Your task to perform on an android device: Open maps Image 0: 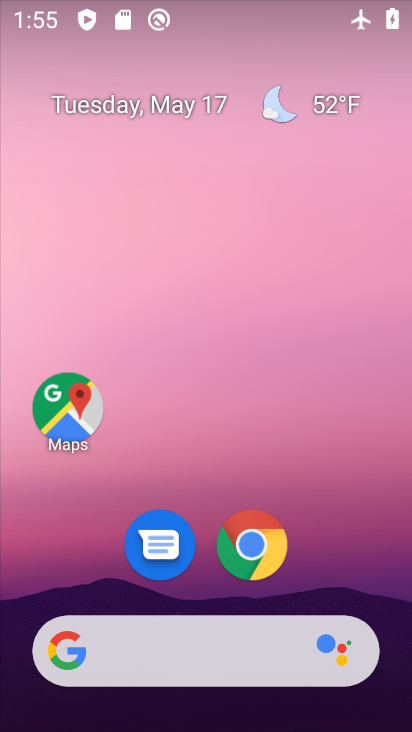
Step 0: drag from (375, 559) to (361, 192)
Your task to perform on an android device: Open maps Image 1: 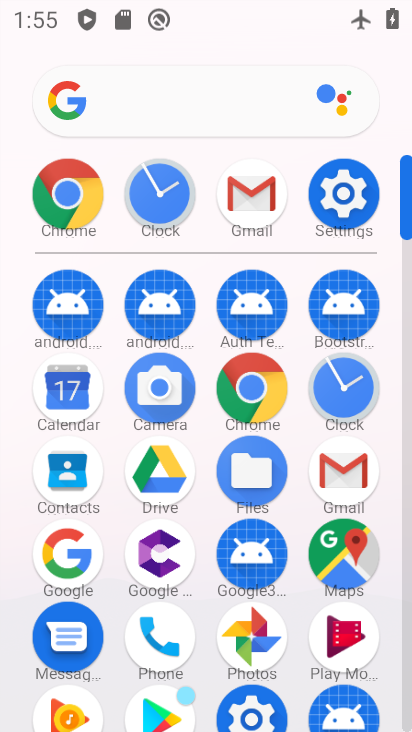
Step 1: click (359, 575)
Your task to perform on an android device: Open maps Image 2: 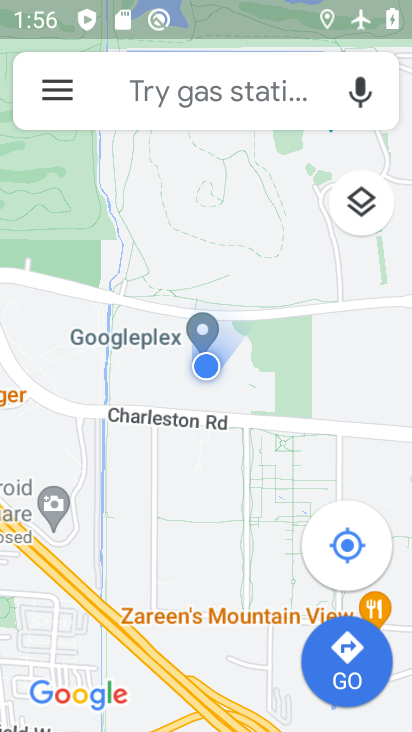
Step 2: task complete